Your task to perform on an android device: Open Google Maps and go to "Timeline" Image 0: 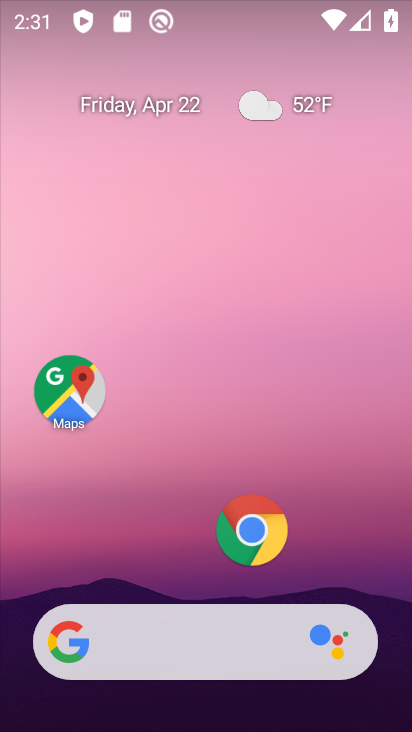
Step 0: click (62, 391)
Your task to perform on an android device: Open Google Maps and go to "Timeline" Image 1: 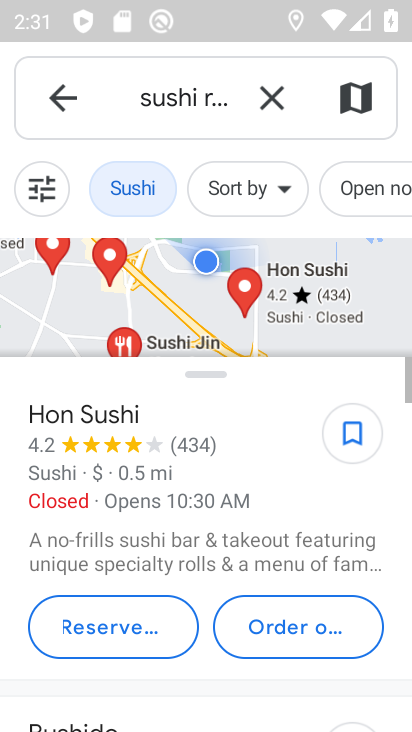
Step 1: click (53, 100)
Your task to perform on an android device: Open Google Maps and go to "Timeline" Image 2: 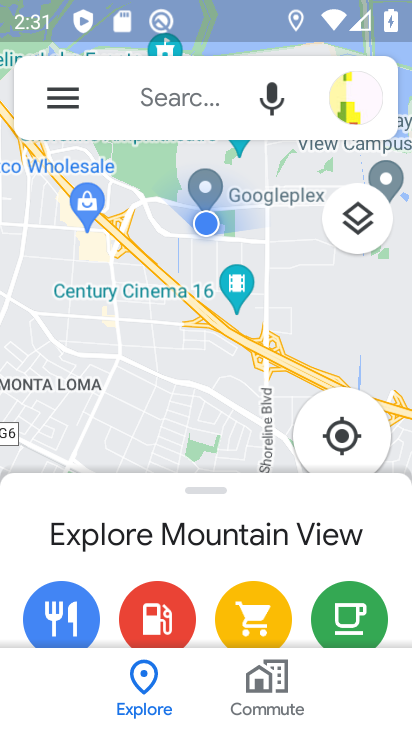
Step 2: click (59, 91)
Your task to perform on an android device: Open Google Maps and go to "Timeline" Image 3: 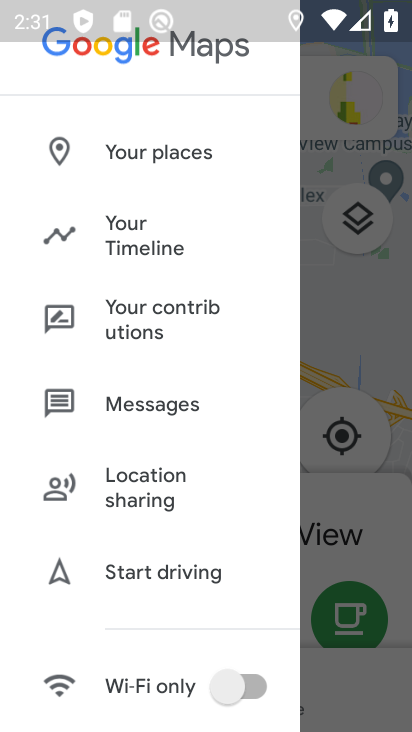
Step 3: click (140, 260)
Your task to perform on an android device: Open Google Maps and go to "Timeline" Image 4: 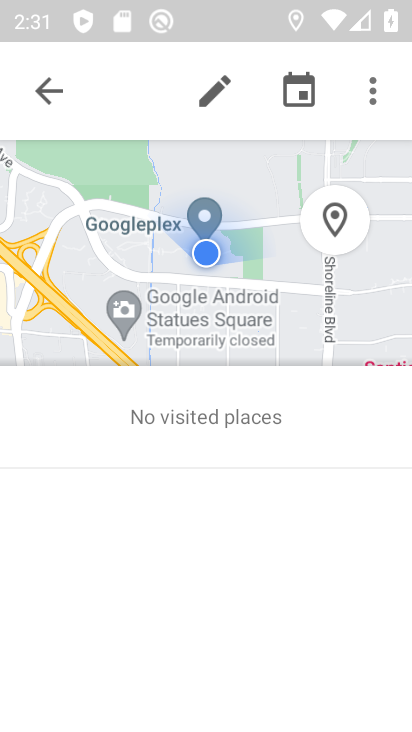
Step 4: task complete